Your task to perform on an android device: clear history in the chrome app Image 0: 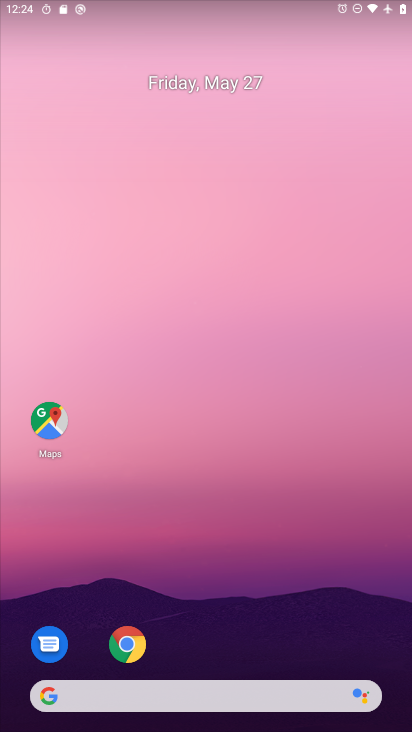
Step 0: click (112, 631)
Your task to perform on an android device: clear history in the chrome app Image 1: 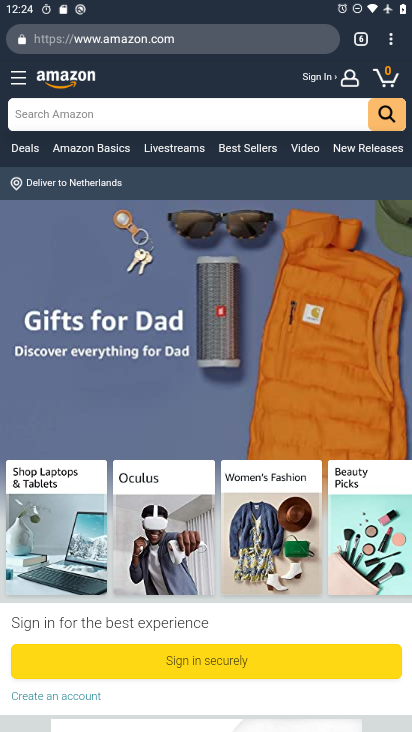
Step 1: drag from (381, 40) to (252, 218)
Your task to perform on an android device: clear history in the chrome app Image 2: 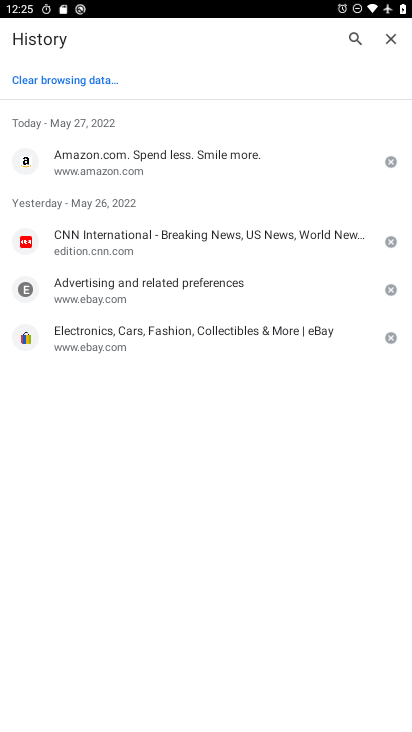
Step 2: click (54, 87)
Your task to perform on an android device: clear history in the chrome app Image 3: 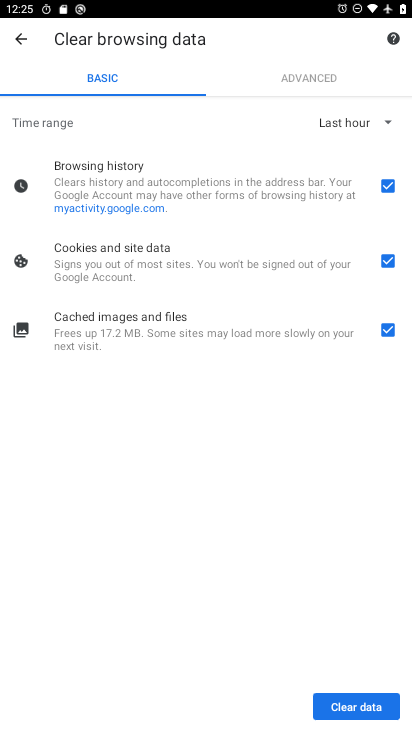
Step 3: click (356, 700)
Your task to perform on an android device: clear history in the chrome app Image 4: 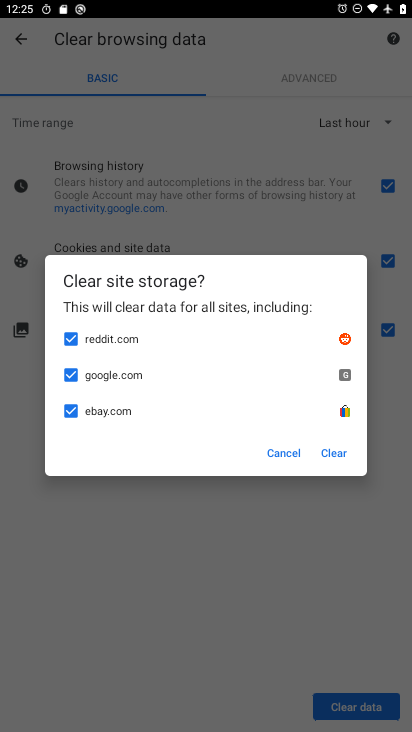
Step 4: click (327, 446)
Your task to perform on an android device: clear history in the chrome app Image 5: 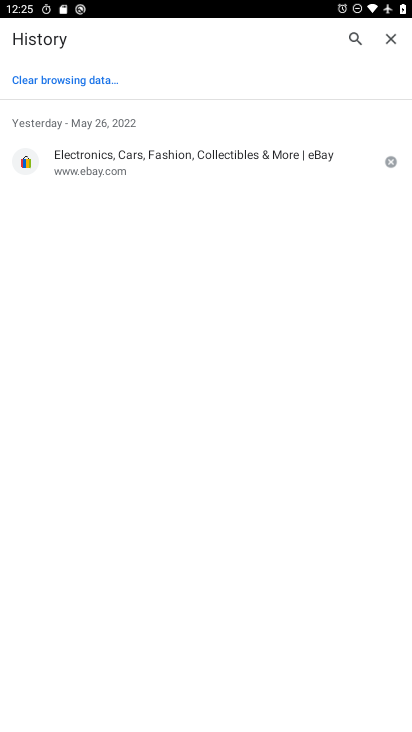
Step 5: task complete